Your task to perform on an android device: Open calendar and show me the second week of next month Image 0: 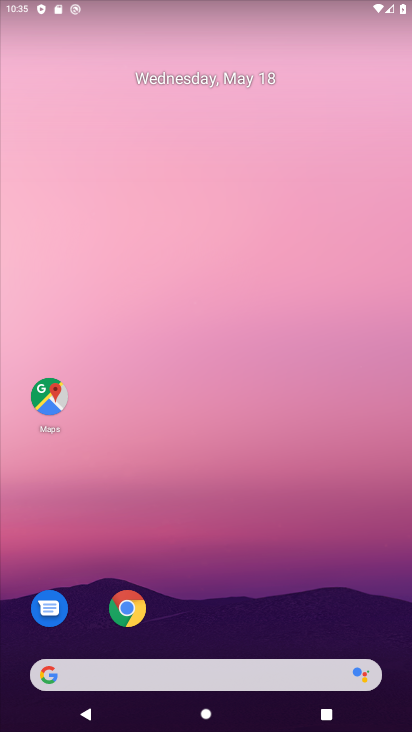
Step 0: press home button
Your task to perform on an android device: Open calendar and show me the second week of next month Image 1: 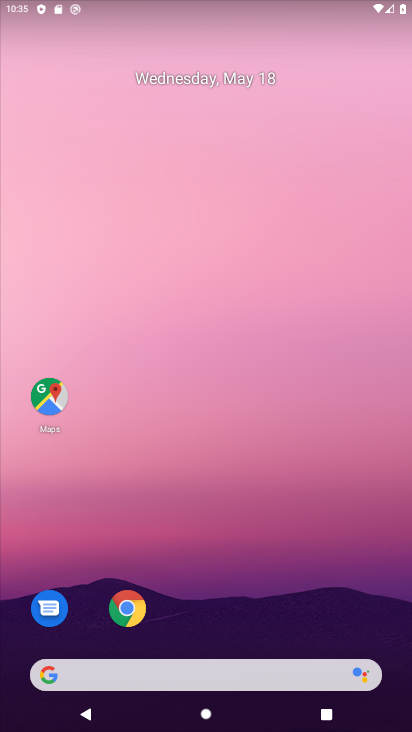
Step 1: drag from (343, 581) to (329, 85)
Your task to perform on an android device: Open calendar and show me the second week of next month Image 2: 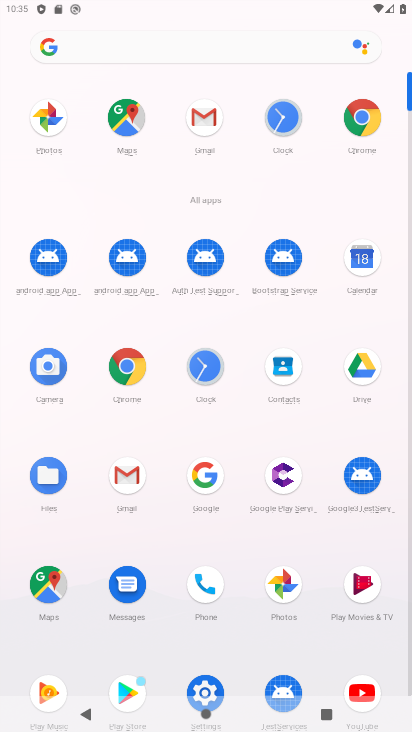
Step 2: click (358, 245)
Your task to perform on an android device: Open calendar and show me the second week of next month Image 3: 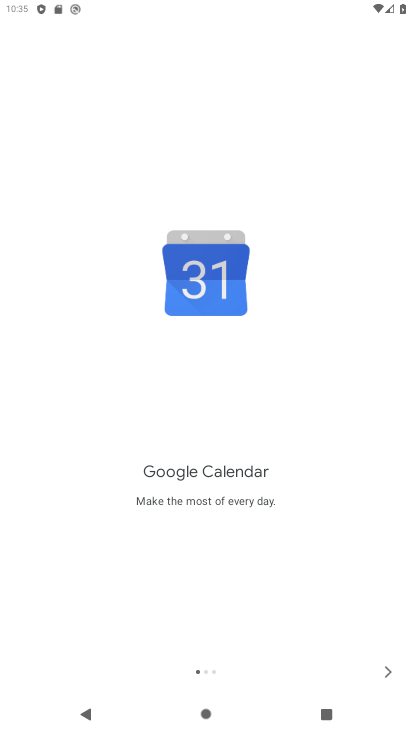
Step 3: click (390, 676)
Your task to perform on an android device: Open calendar and show me the second week of next month Image 4: 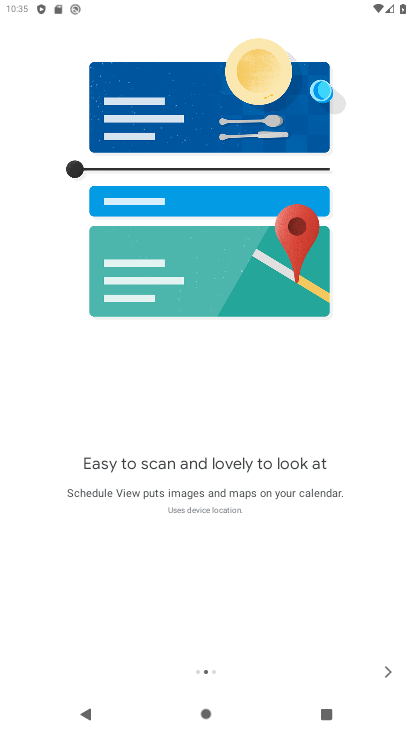
Step 4: click (390, 676)
Your task to perform on an android device: Open calendar and show me the second week of next month Image 5: 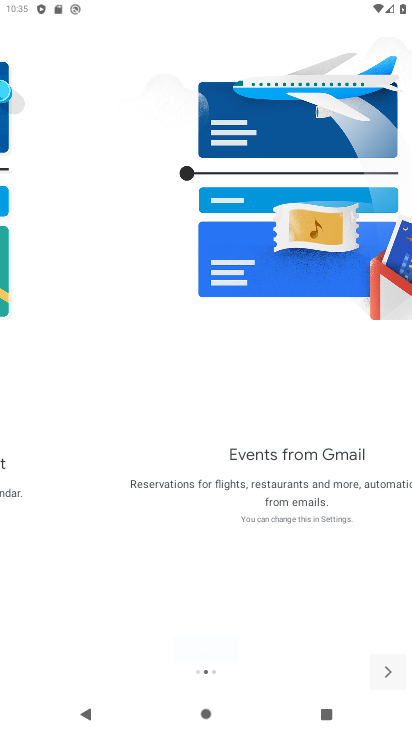
Step 5: click (390, 676)
Your task to perform on an android device: Open calendar and show me the second week of next month Image 6: 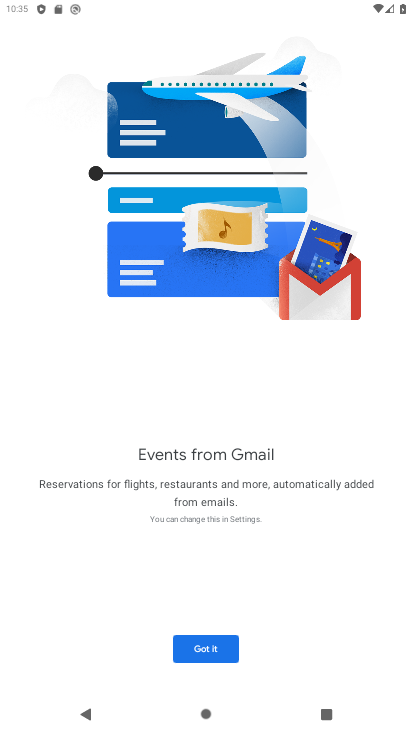
Step 6: click (224, 649)
Your task to perform on an android device: Open calendar and show me the second week of next month Image 7: 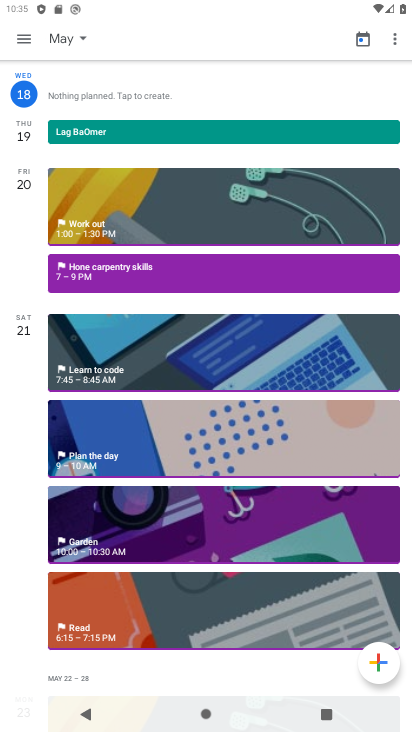
Step 7: click (83, 34)
Your task to perform on an android device: Open calendar and show me the second week of next month Image 8: 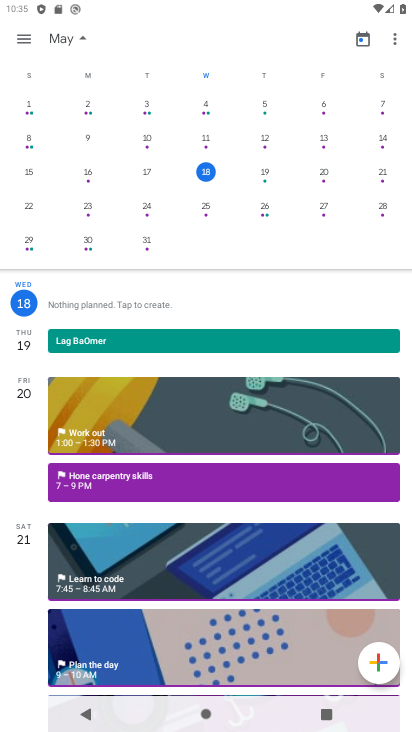
Step 8: drag from (371, 172) to (72, 160)
Your task to perform on an android device: Open calendar and show me the second week of next month Image 9: 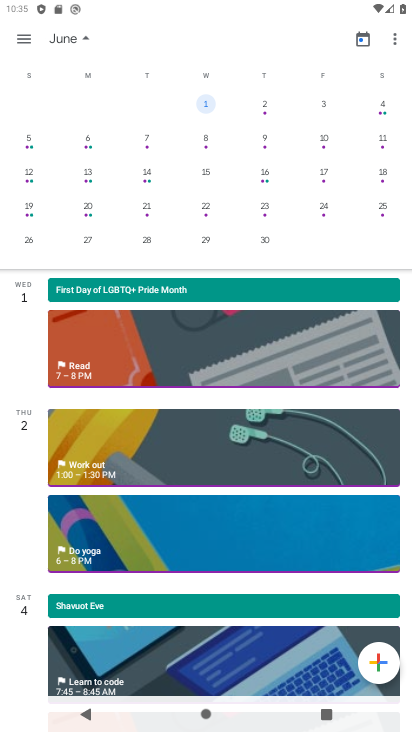
Step 9: click (207, 134)
Your task to perform on an android device: Open calendar and show me the second week of next month Image 10: 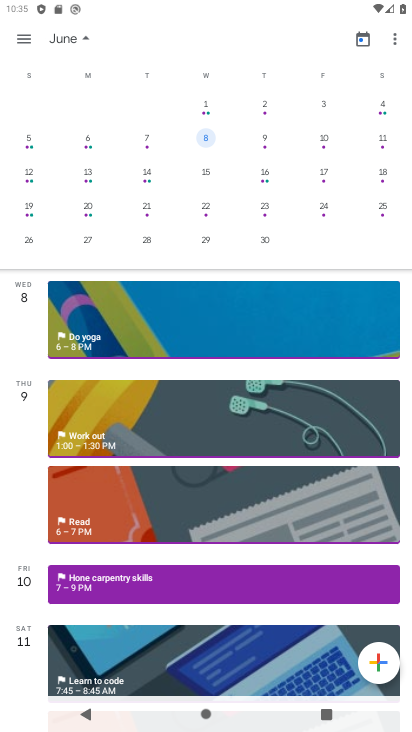
Step 10: task complete